Your task to perform on an android device: Open calendar and show me the third week of next month Image 0: 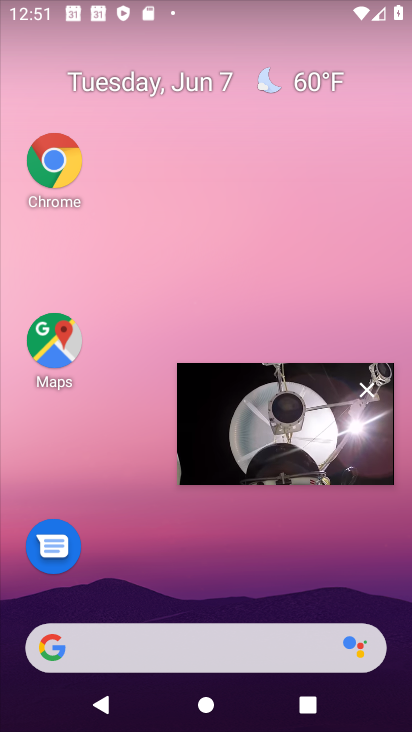
Step 0: drag from (337, 410) to (254, 730)
Your task to perform on an android device: Open calendar and show me the third week of next month Image 1: 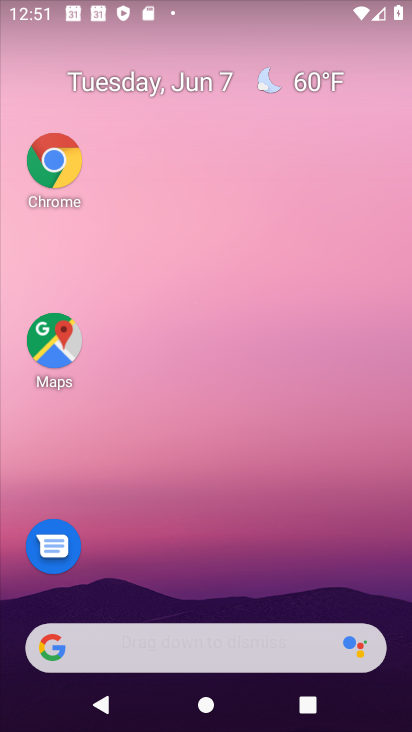
Step 1: drag from (233, 571) to (241, 0)
Your task to perform on an android device: Open calendar and show me the third week of next month Image 2: 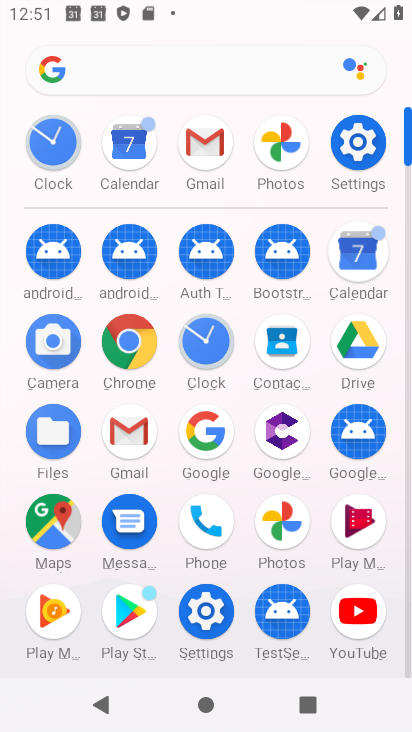
Step 2: click (361, 249)
Your task to perform on an android device: Open calendar and show me the third week of next month Image 3: 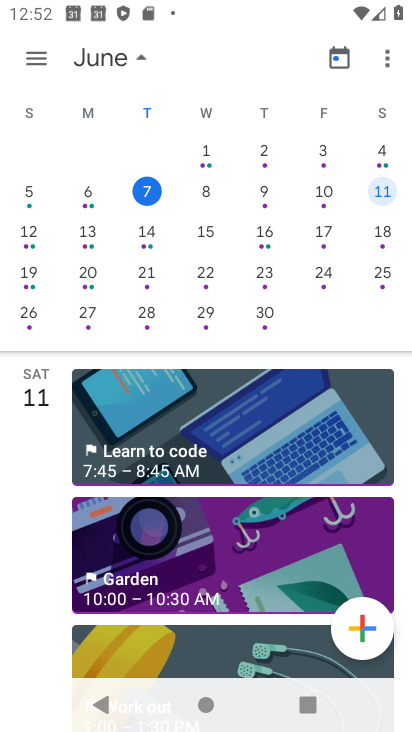
Step 3: drag from (385, 241) to (11, 231)
Your task to perform on an android device: Open calendar and show me the third week of next month Image 4: 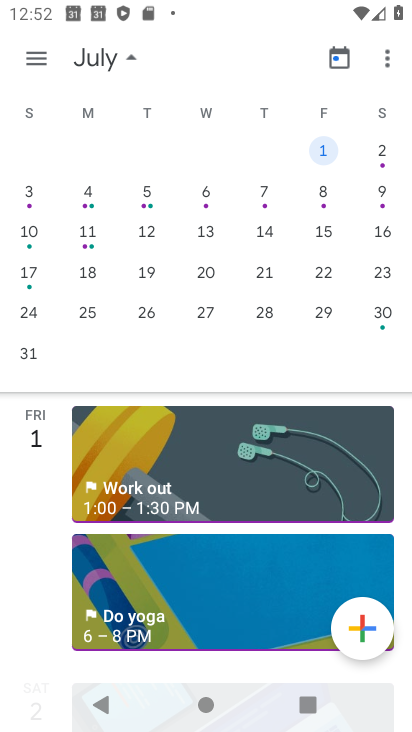
Step 4: click (321, 228)
Your task to perform on an android device: Open calendar and show me the third week of next month Image 5: 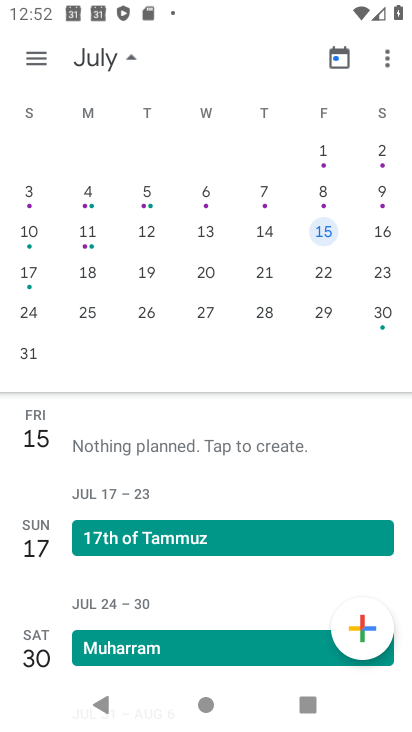
Step 5: task complete